Your task to perform on an android device: turn off translation in the chrome app Image 0: 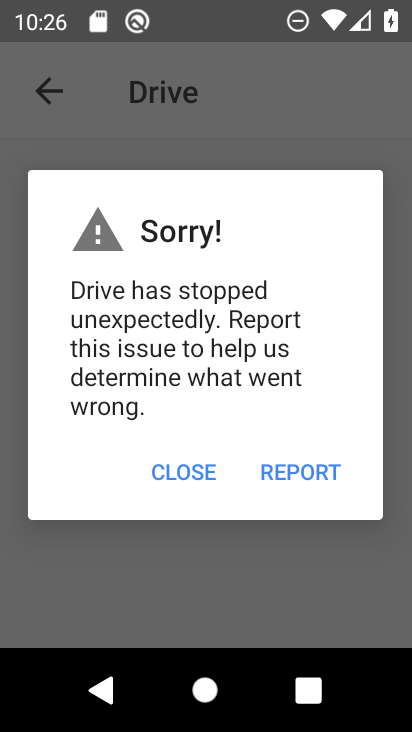
Step 0: press home button
Your task to perform on an android device: turn off translation in the chrome app Image 1: 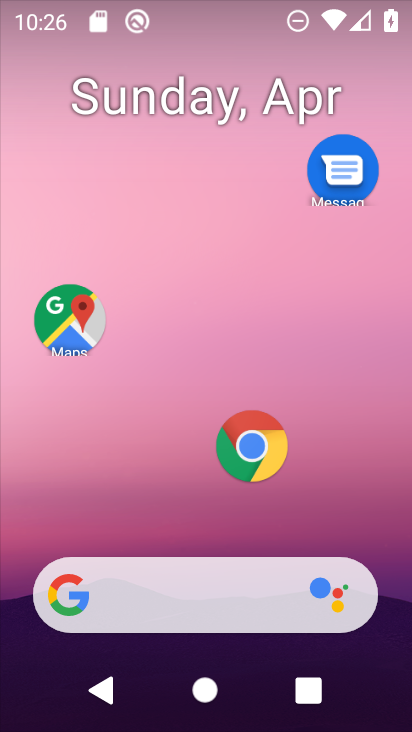
Step 1: drag from (213, 525) to (246, 126)
Your task to perform on an android device: turn off translation in the chrome app Image 2: 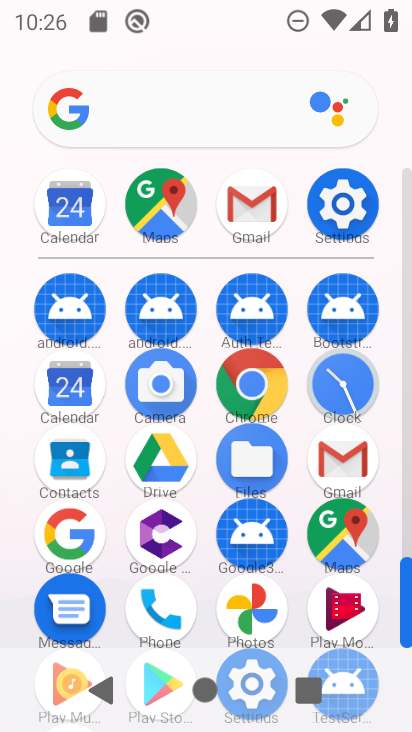
Step 2: click (246, 385)
Your task to perform on an android device: turn off translation in the chrome app Image 3: 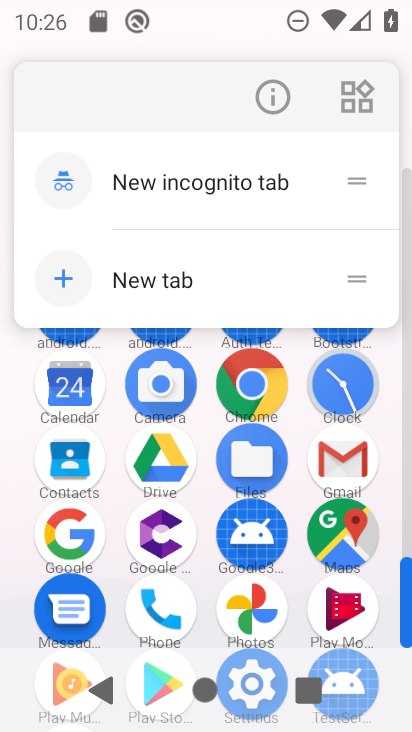
Step 3: click (271, 87)
Your task to perform on an android device: turn off translation in the chrome app Image 4: 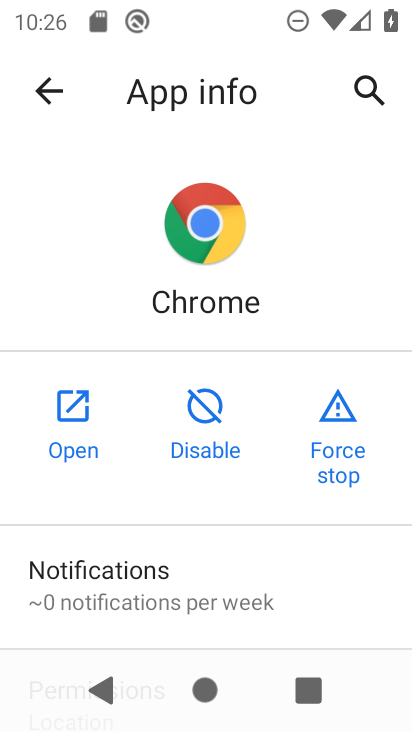
Step 4: click (85, 392)
Your task to perform on an android device: turn off translation in the chrome app Image 5: 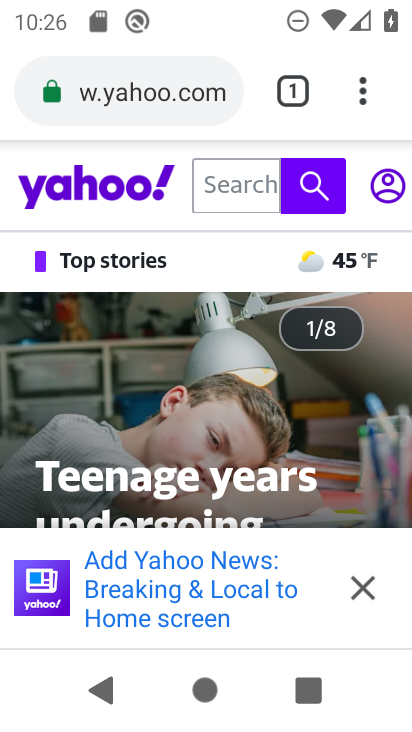
Step 5: drag from (370, 88) to (194, 498)
Your task to perform on an android device: turn off translation in the chrome app Image 6: 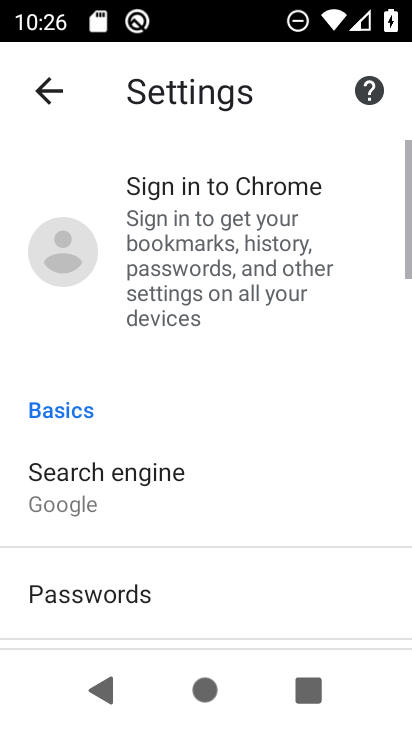
Step 6: drag from (213, 583) to (236, 190)
Your task to perform on an android device: turn off translation in the chrome app Image 7: 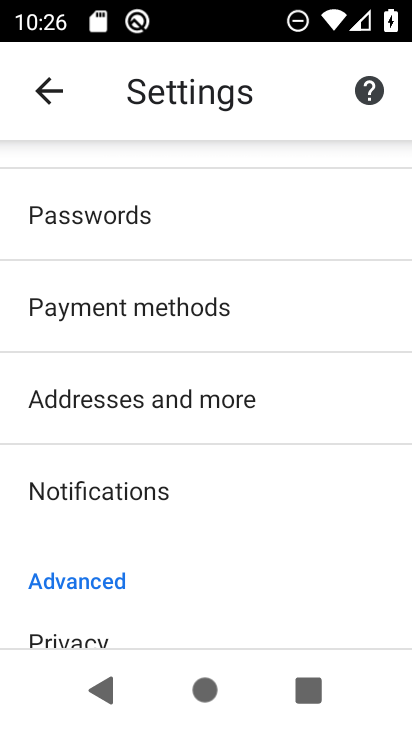
Step 7: drag from (153, 531) to (263, 23)
Your task to perform on an android device: turn off translation in the chrome app Image 8: 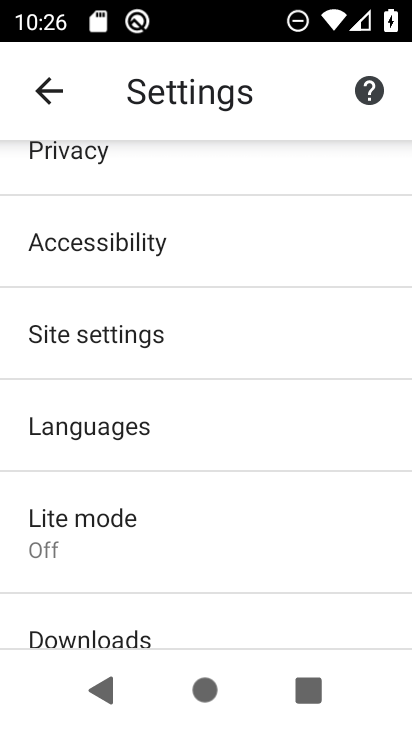
Step 8: drag from (165, 515) to (246, 76)
Your task to perform on an android device: turn off translation in the chrome app Image 9: 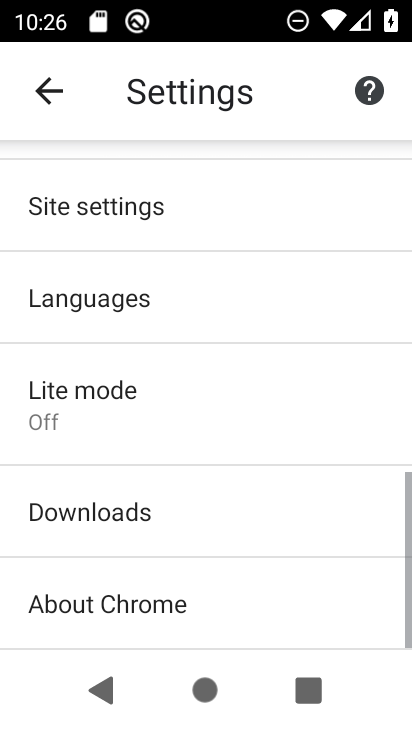
Step 9: drag from (214, 330) to (243, 106)
Your task to perform on an android device: turn off translation in the chrome app Image 10: 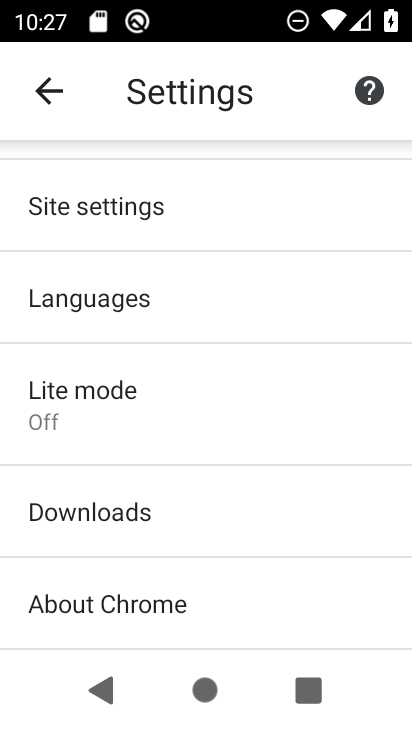
Step 10: click (182, 293)
Your task to perform on an android device: turn off translation in the chrome app Image 11: 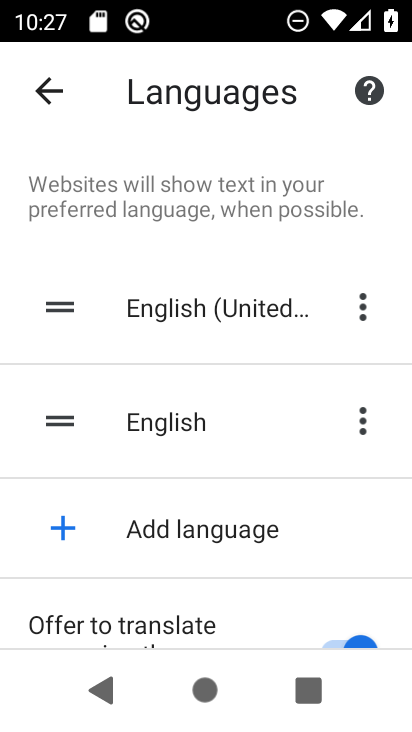
Step 11: drag from (192, 574) to (298, 119)
Your task to perform on an android device: turn off translation in the chrome app Image 12: 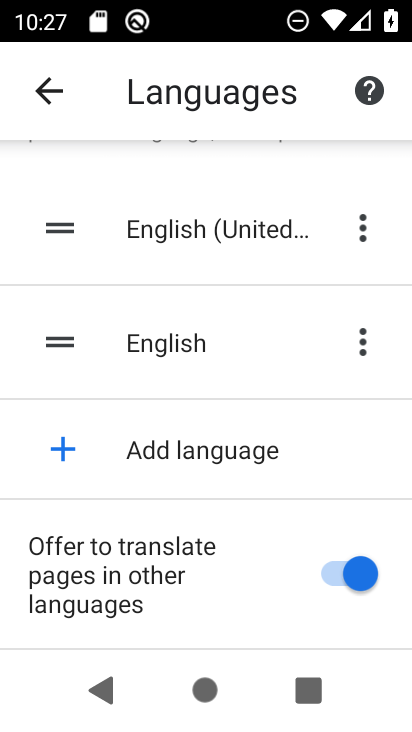
Step 12: click (308, 580)
Your task to perform on an android device: turn off translation in the chrome app Image 13: 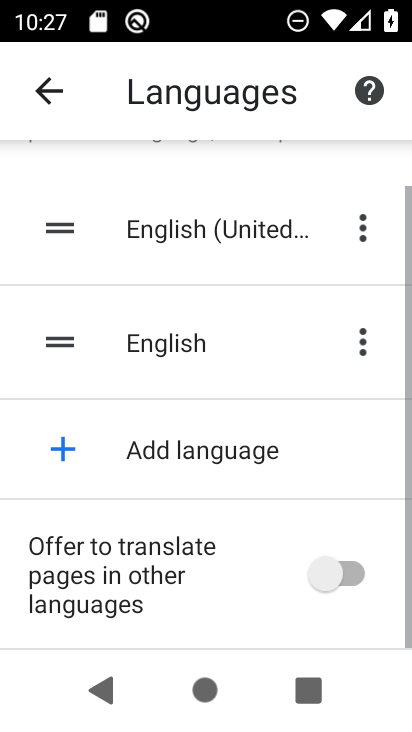
Step 13: task complete